Your task to perform on an android device: Show me popular games on the Play Store Image 0: 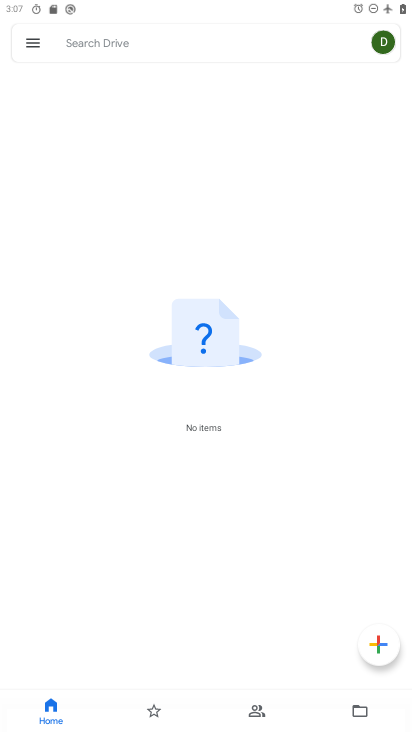
Step 0: press home button
Your task to perform on an android device: Show me popular games on the Play Store Image 1: 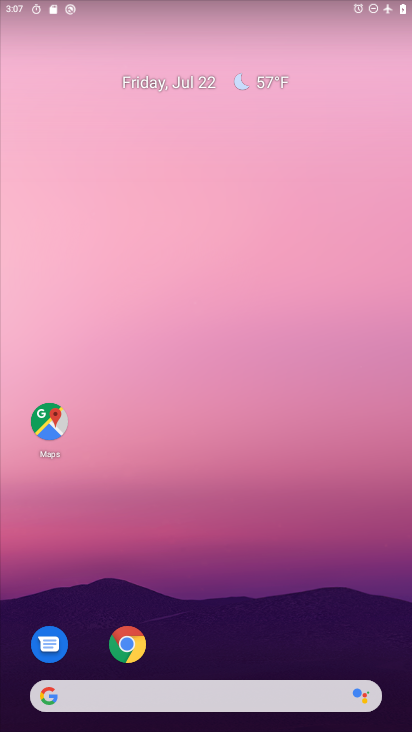
Step 1: drag from (226, 648) to (258, 138)
Your task to perform on an android device: Show me popular games on the Play Store Image 2: 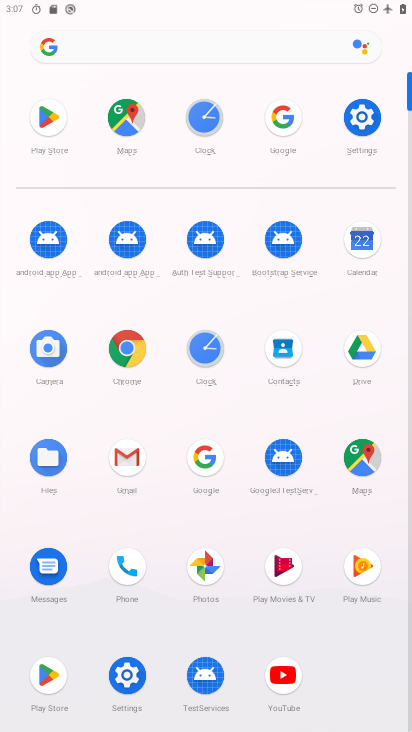
Step 2: click (34, 142)
Your task to perform on an android device: Show me popular games on the Play Store Image 3: 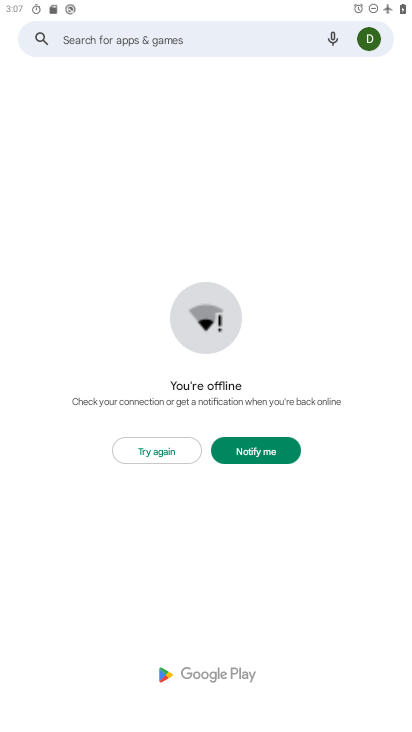
Step 3: click (178, 458)
Your task to perform on an android device: Show me popular games on the Play Store Image 4: 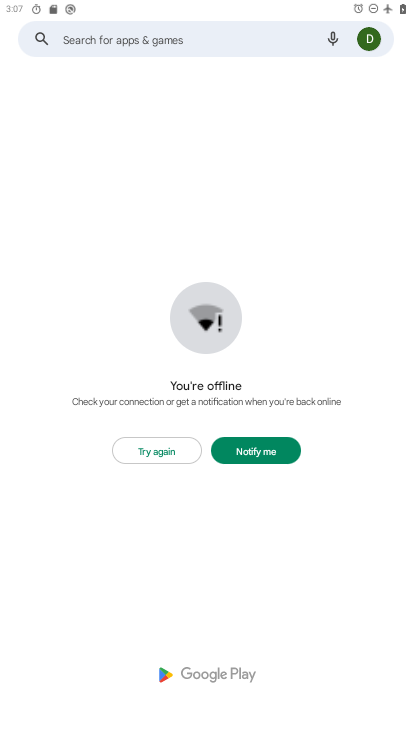
Step 4: task complete